Your task to perform on an android device: find snoozed emails in the gmail app Image 0: 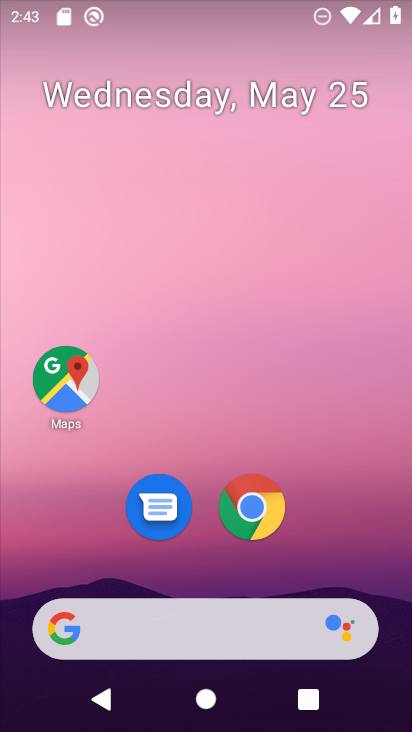
Step 0: drag from (200, 667) to (245, 211)
Your task to perform on an android device: find snoozed emails in the gmail app Image 1: 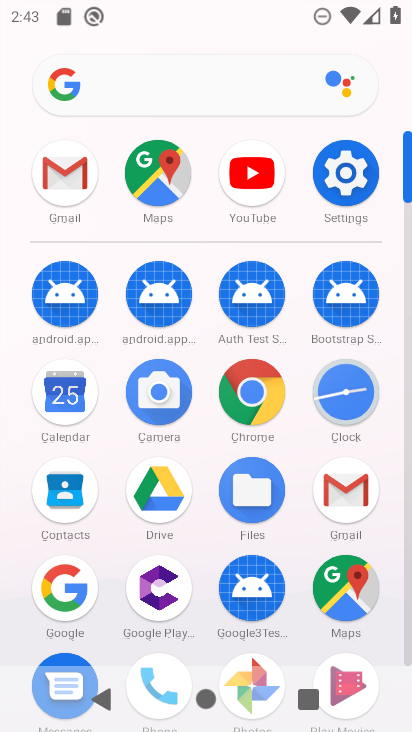
Step 1: click (344, 494)
Your task to perform on an android device: find snoozed emails in the gmail app Image 2: 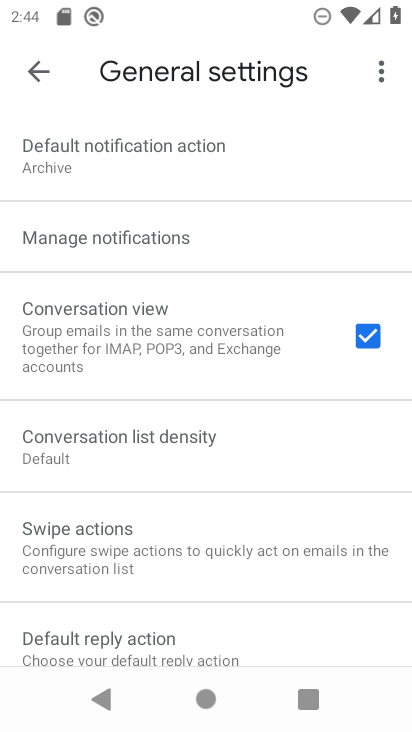
Step 2: click (31, 67)
Your task to perform on an android device: find snoozed emails in the gmail app Image 3: 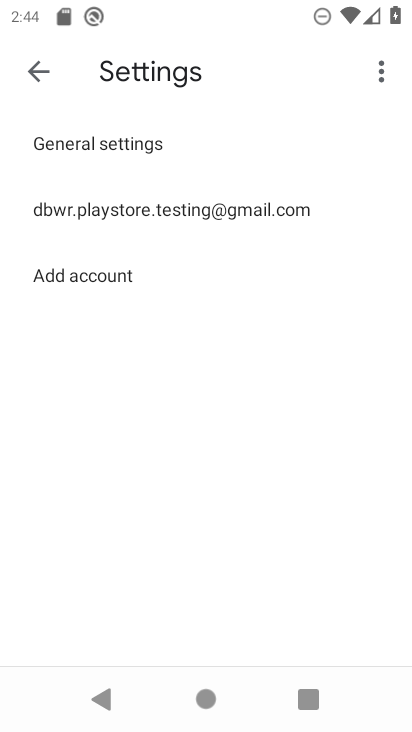
Step 3: click (37, 74)
Your task to perform on an android device: find snoozed emails in the gmail app Image 4: 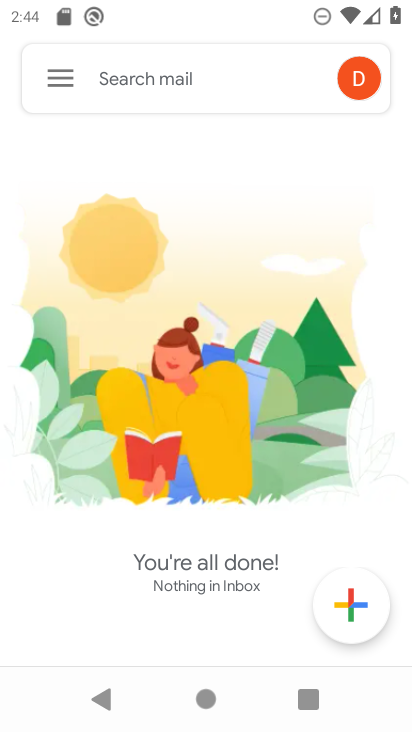
Step 4: click (64, 87)
Your task to perform on an android device: find snoozed emails in the gmail app Image 5: 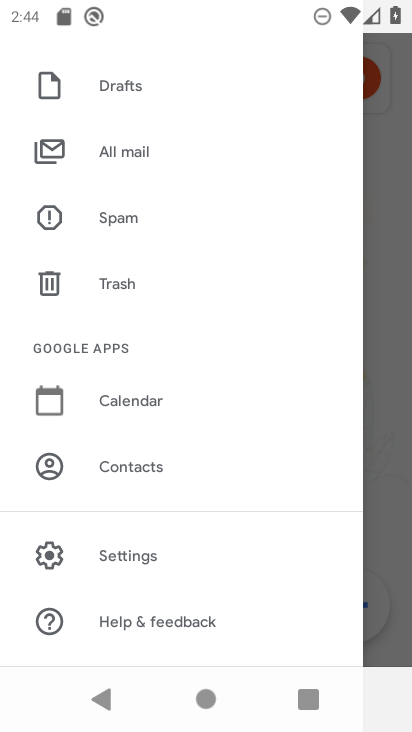
Step 5: drag from (163, 282) to (121, 708)
Your task to perform on an android device: find snoozed emails in the gmail app Image 6: 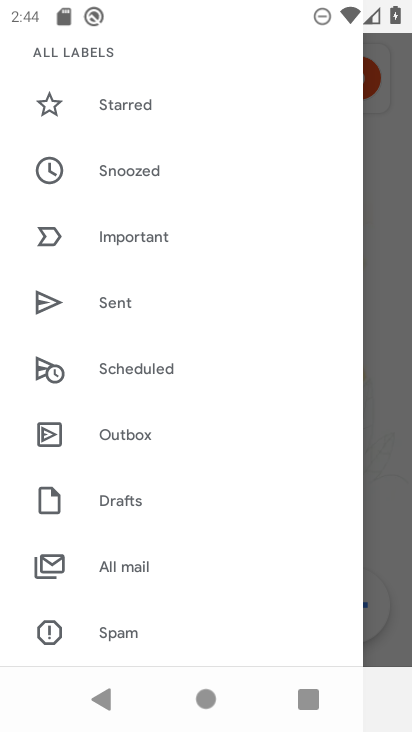
Step 6: drag from (126, 300) to (66, 665)
Your task to perform on an android device: find snoozed emails in the gmail app Image 7: 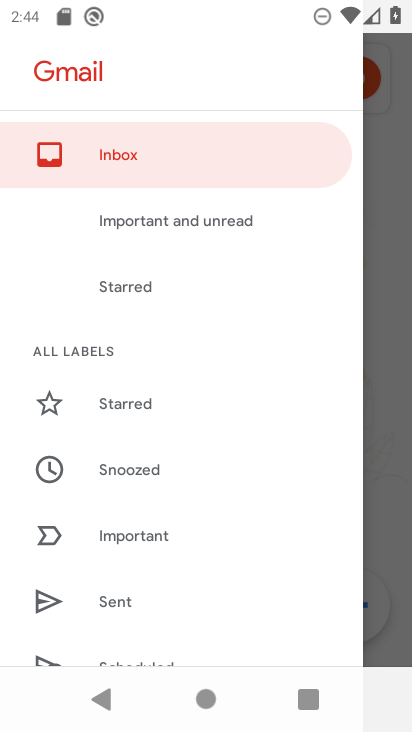
Step 7: click (127, 469)
Your task to perform on an android device: find snoozed emails in the gmail app Image 8: 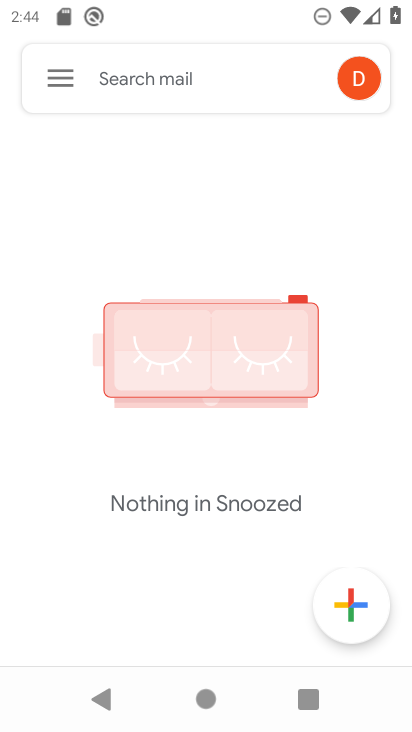
Step 8: task complete